Your task to perform on an android device: change the clock display to show seconds Image 0: 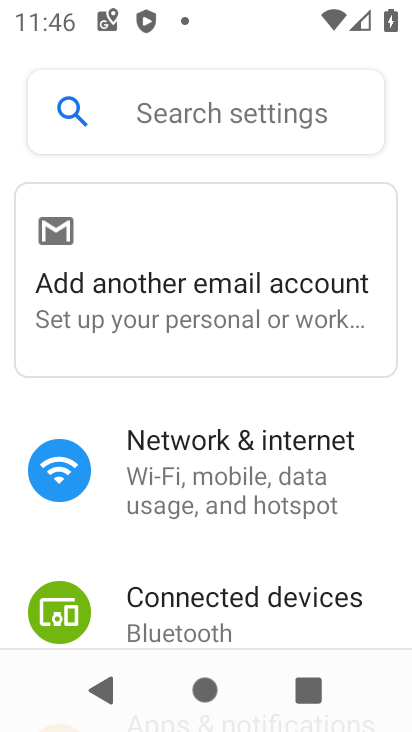
Step 0: press home button
Your task to perform on an android device: change the clock display to show seconds Image 1: 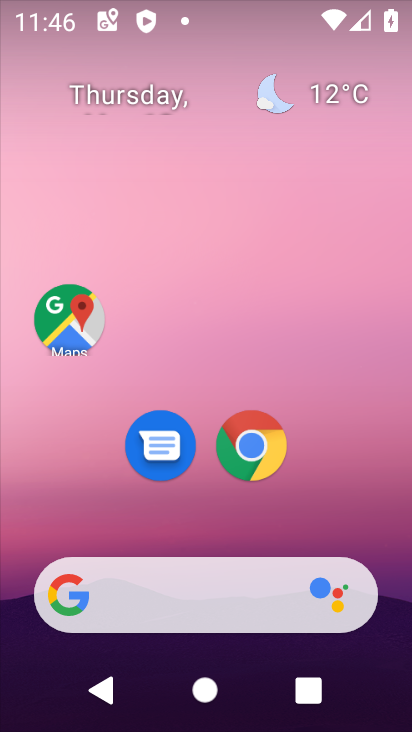
Step 1: drag from (148, 639) to (167, 127)
Your task to perform on an android device: change the clock display to show seconds Image 2: 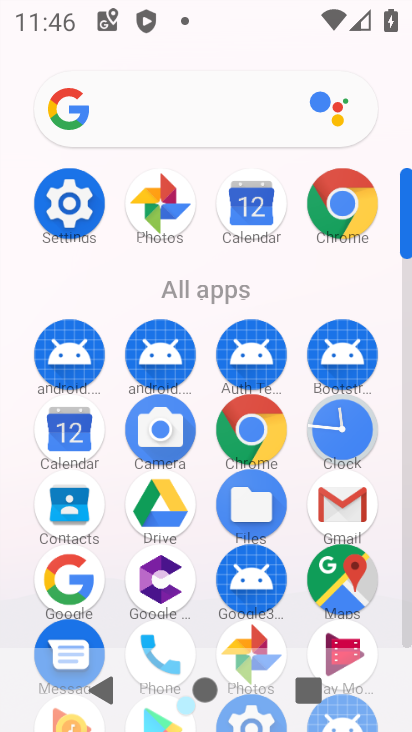
Step 2: click (333, 425)
Your task to perform on an android device: change the clock display to show seconds Image 3: 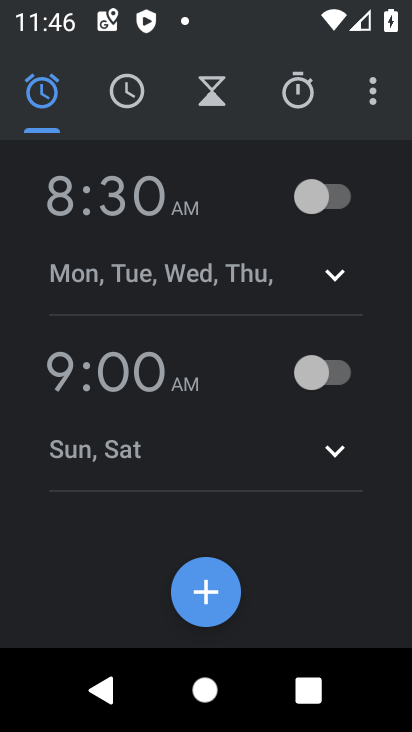
Step 3: click (363, 98)
Your task to perform on an android device: change the clock display to show seconds Image 4: 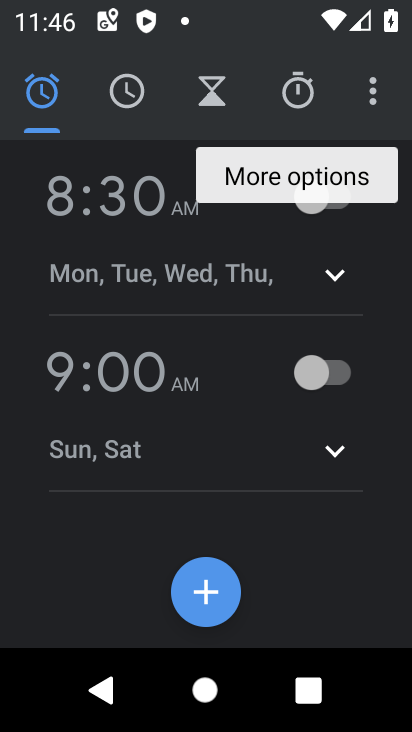
Step 4: click (363, 98)
Your task to perform on an android device: change the clock display to show seconds Image 5: 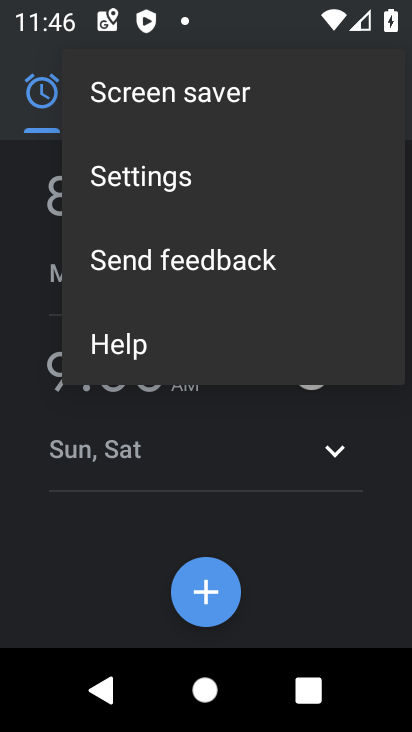
Step 5: click (200, 180)
Your task to perform on an android device: change the clock display to show seconds Image 6: 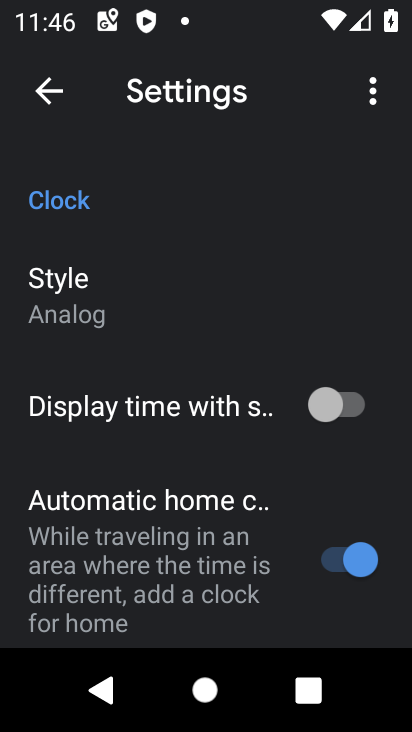
Step 6: click (354, 412)
Your task to perform on an android device: change the clock display to show seconds Image 7: 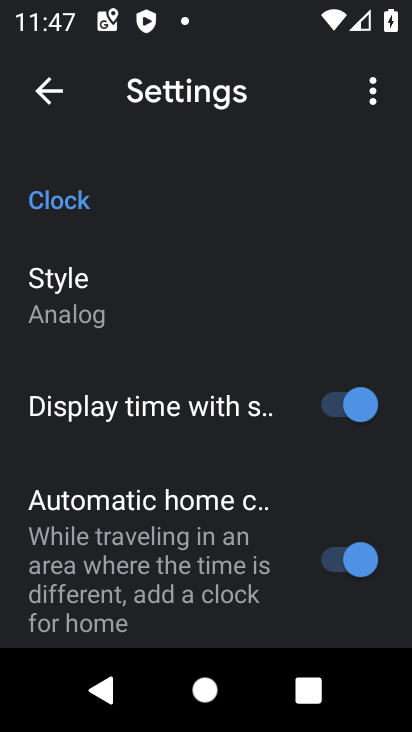
Step 7: task complete